Your task to perform on an android device: change keyboard looks Image 0: 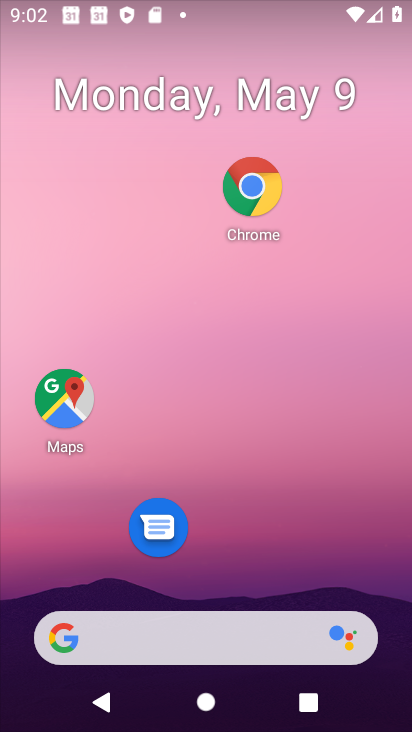
Step 0: drag from (211, 583) to (262, 163)
Your task to perform on an android device: change keyboard looks Image 1: 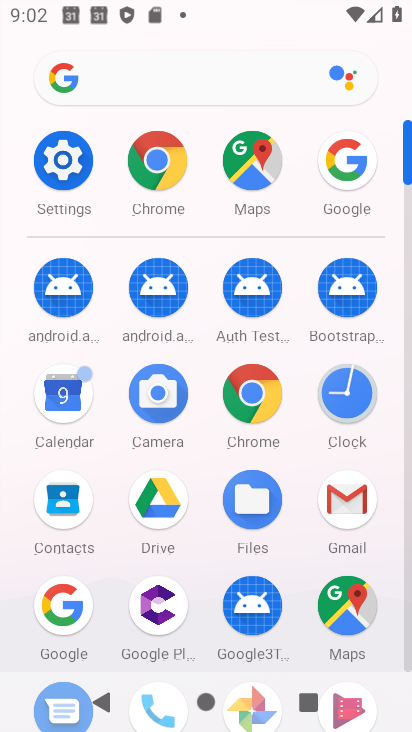
Step 1: click (64, 154)
Your task to perform on an android device: change keyboard looks Image 2: 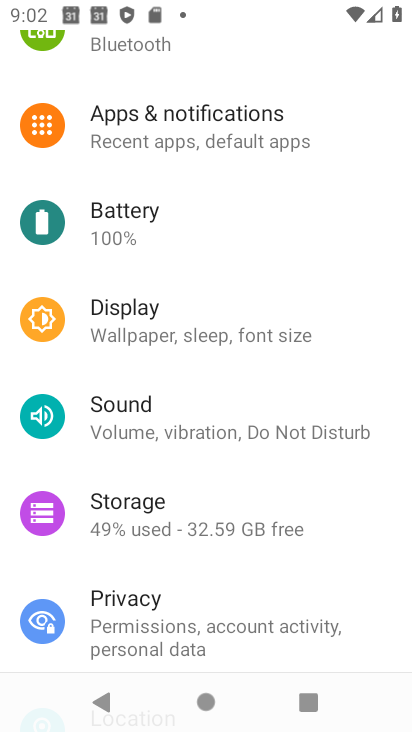
Step 2: drag from (200, 600) to (254, 134)
Your task to perform on an android device: change keyboard looks Image 3: 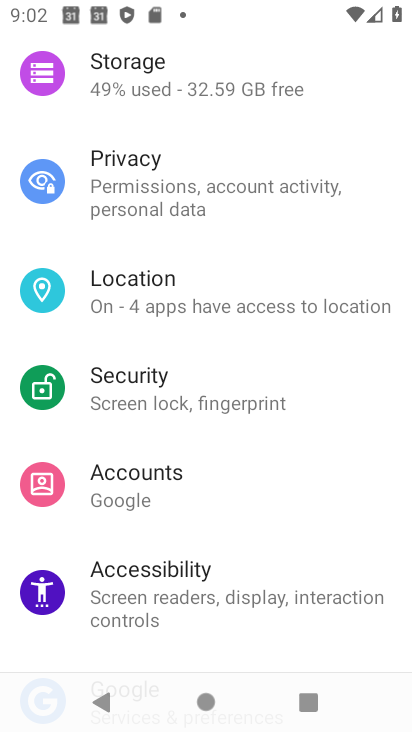
Step 3: drag from (213, 604) to (254, 133)
Your task to perform on an android device: change keyboard looks Image 4: 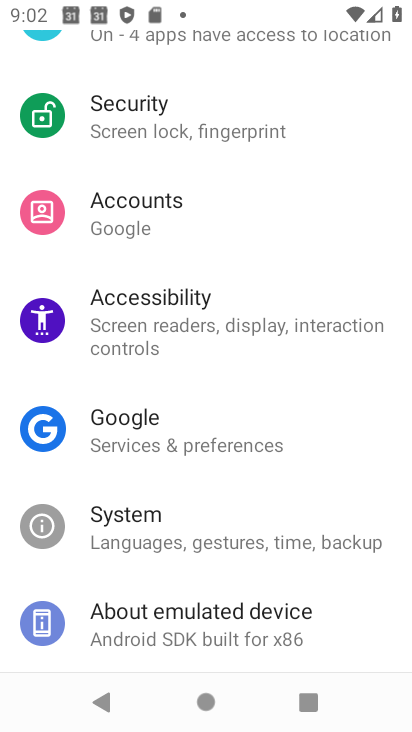
Step 4: click (175, 515)
Your task to perform on an android device: change keyboard looks Image 5: 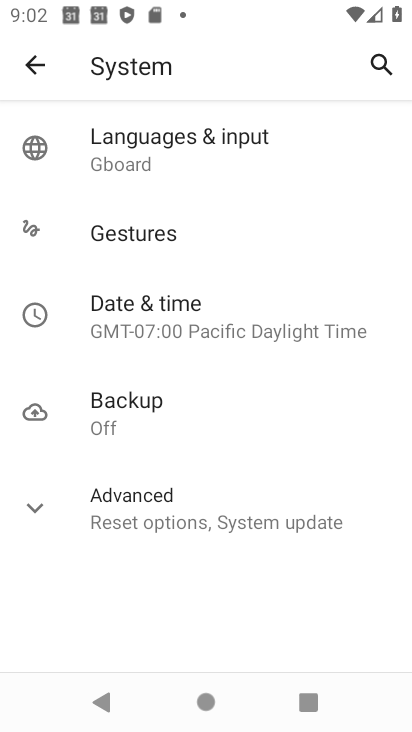
Step 5: click (92, 151)
Your task to perform on an android device: change keyboard looks Image 6: 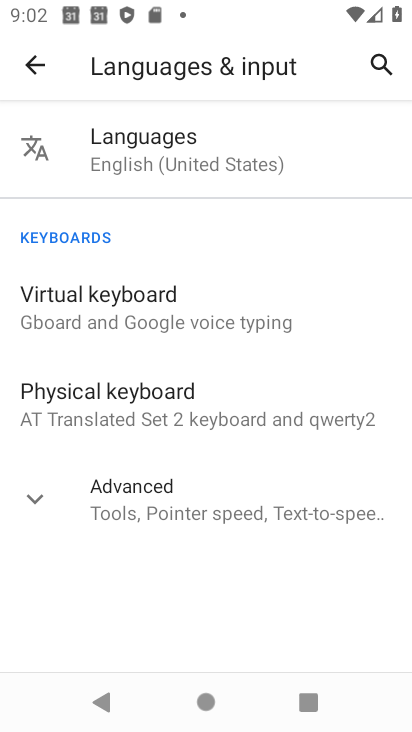
Step 6: click (188, 294)
Your task to perform on an android device: change keyboard looks Image 7: 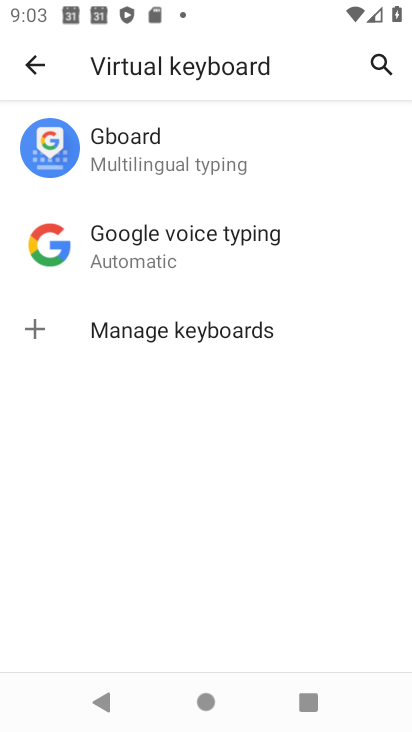
Step 7: click (158, 141)
Your task to perform on an android device: change keyboard looks Image 8: 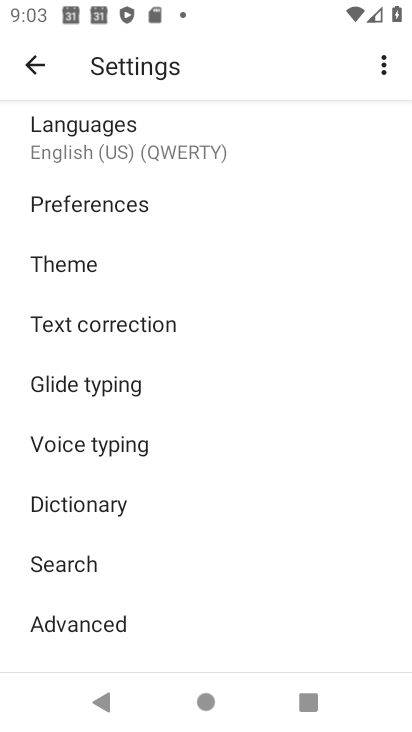
Step 8: click (109, 261)
Your task to perform on an android device: change keyboard looks Image 9: 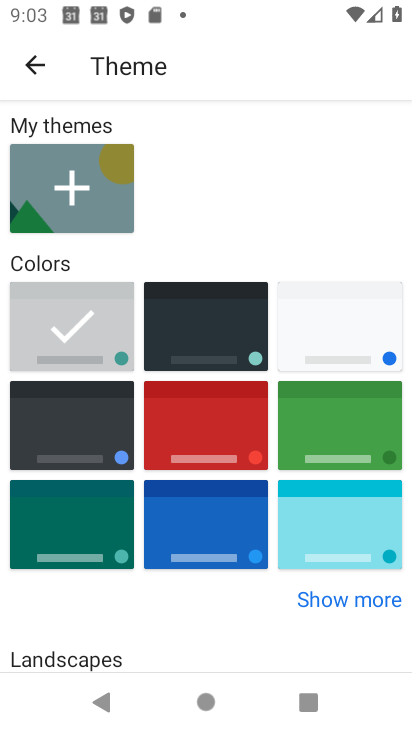
Step 9: click (65, 437)
Your task to perform on an android device: change keyboard looks Image 10: 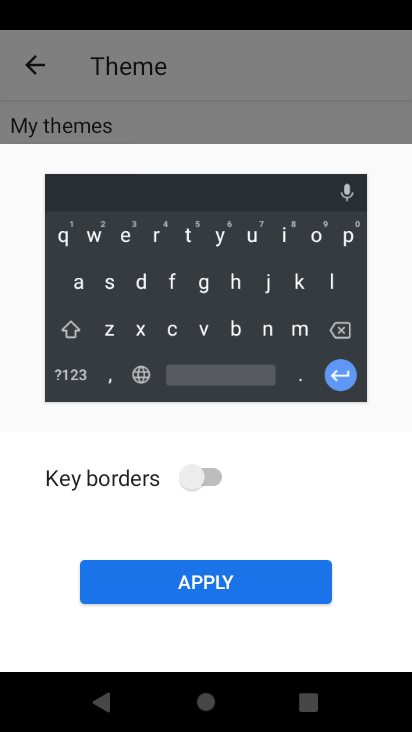
Step 10: click (218, 574)
Your task to perform on an android device: change keyboard looks Image 11: 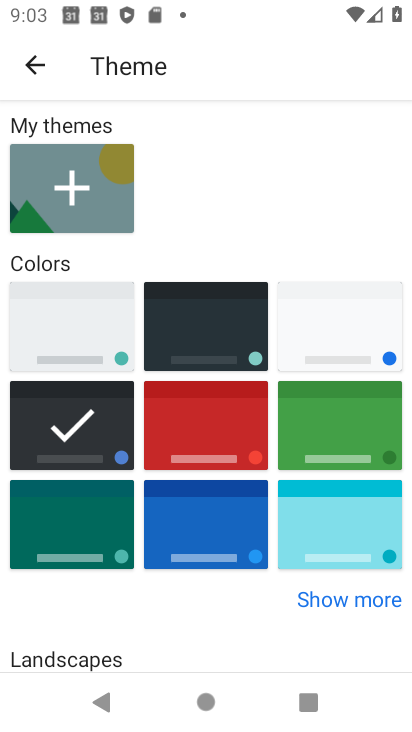
Step 11: task complete